Your task to perform on an android device: What's the weather going to be tomorrow? Image 0: 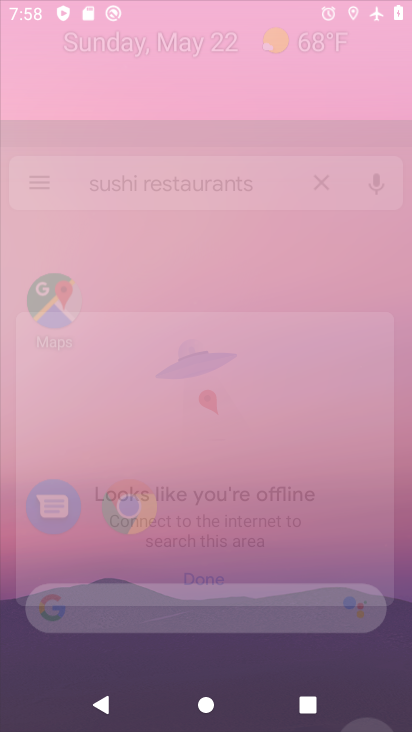
Step 0: press back button
Your task to perform on an android device: What's the weather going to be tomorrow? Image 1: 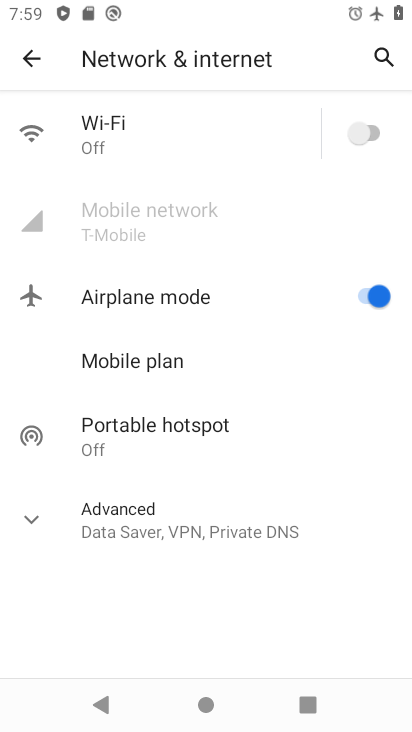
Step 1: click (359, 124)
Your task to perform on an android device: What's the weather going to be tomorrow? Image 2: 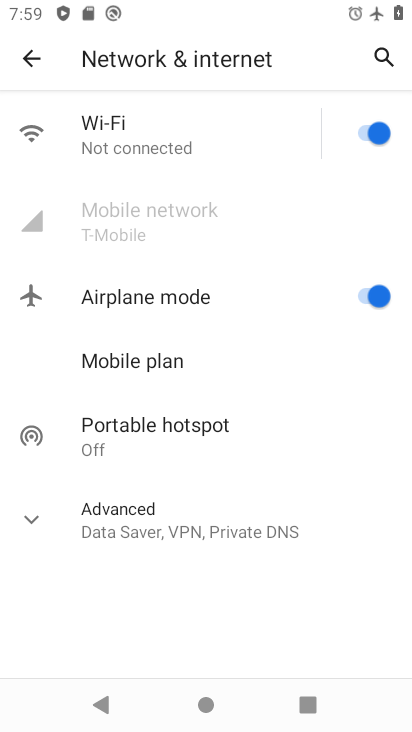
Step 2: click (383, 302)
Your task to perform on an android device: What's the weather going to be tomorrow? Image 3: 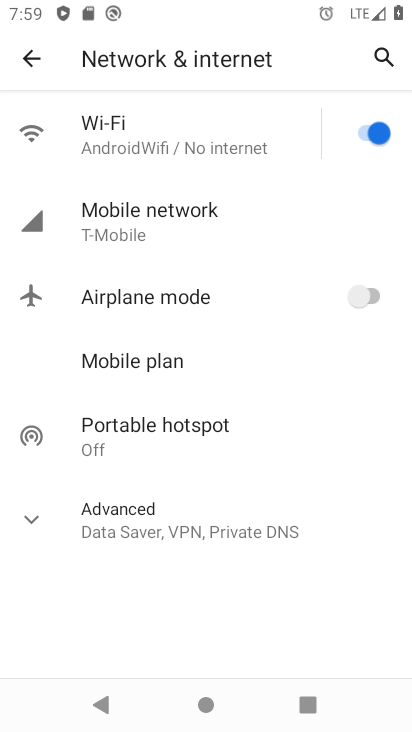
Step 3: click (13, 53)
Your task to perform on an android device: What's the weather going to be tomorrow? Image 4: 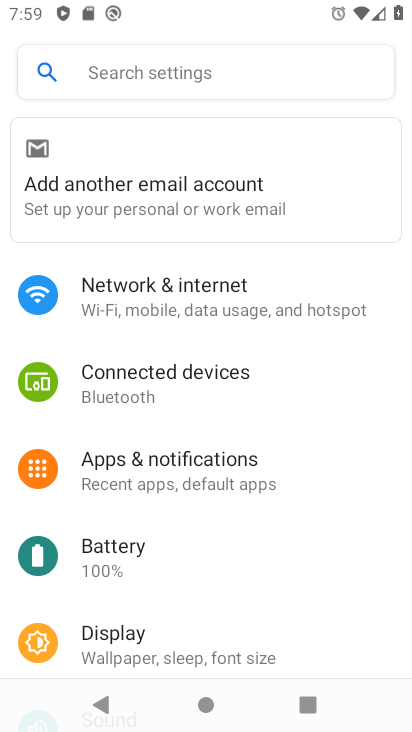
Step 4: press back button
Your task to perform on an android device: What's the weather going to be tomorrow? Image 5: 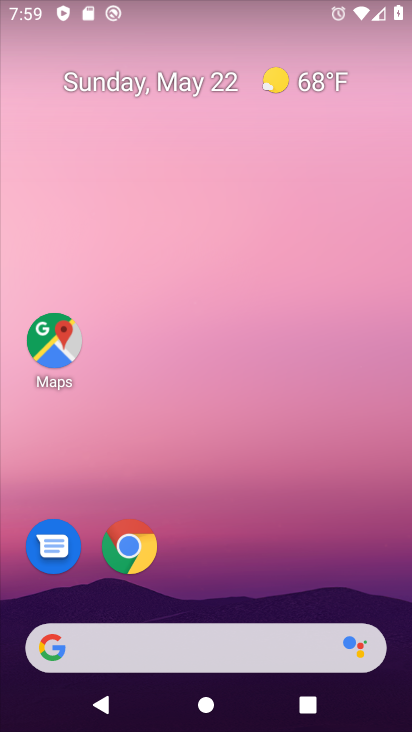
Step 5: drag from (398, 421) to (406, 380)
Your task to perform on an android device: What's the weather going to be tomorrow? Image 6: 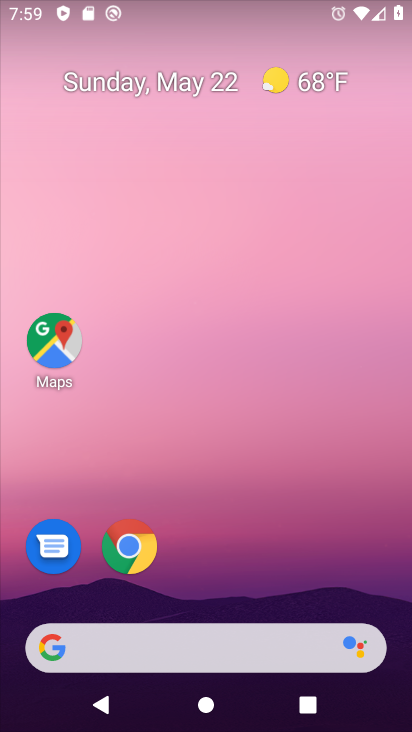
Step 6: drag from (0, 254) to (404, 486)
Your task to perform on an android device: What's the weather going to be tomorrow? Image 7: 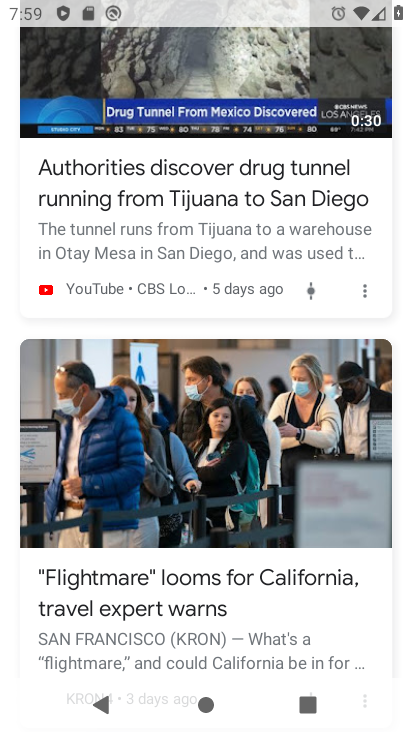
Step 7: drag from (161, 139) to (264, 547)
Your task to perform on an android device: What's the weather going to be tomorrow? Image 8: 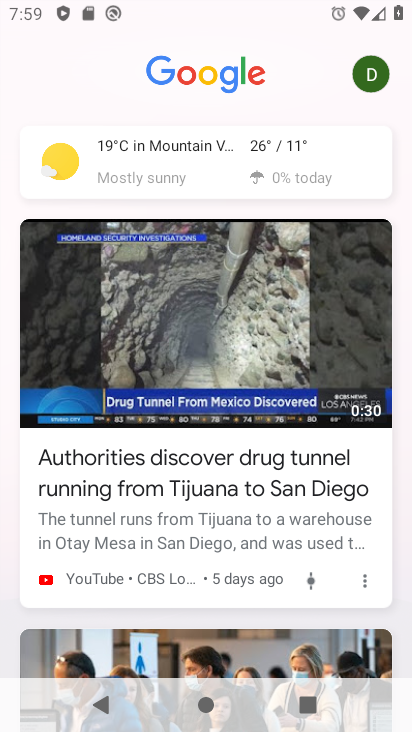
Step 8: click (208, 162)
Your task to perform on an android device: What's the weather going to be tomorrow? Image 9: 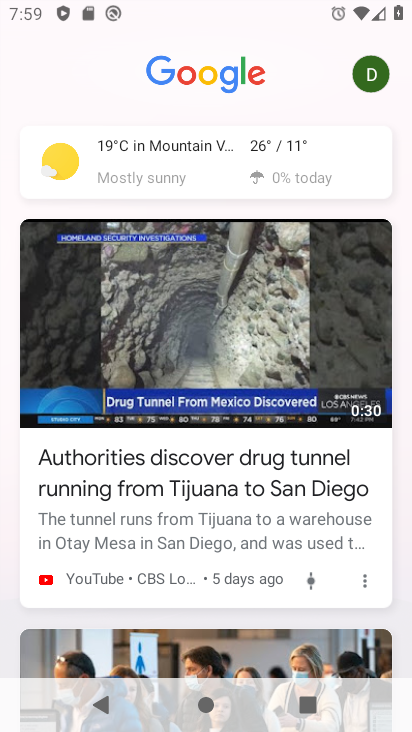
Step 9: click (208, 162)
Your task to perform on an android device: What's the weather going to be tomorrow? Image 10: 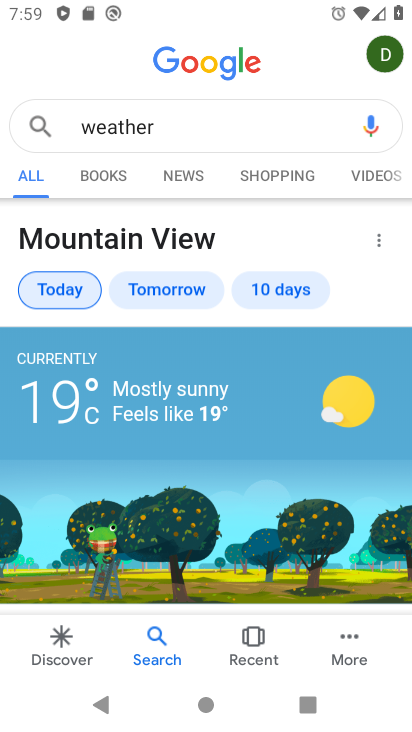
Step 10: click (167, 288)
Your task to perform on an android device: What's the weather going to be tomorrow? Image 11: 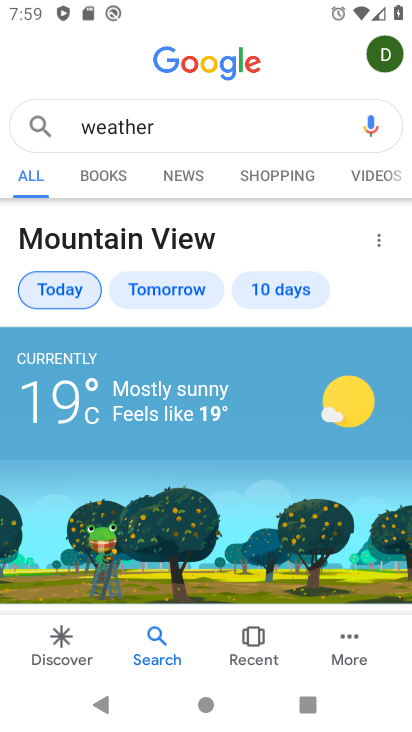
Step 11: click (167, 288)
Your task to perform on an android device: What's the weather going to be tomorrow? Image 12: 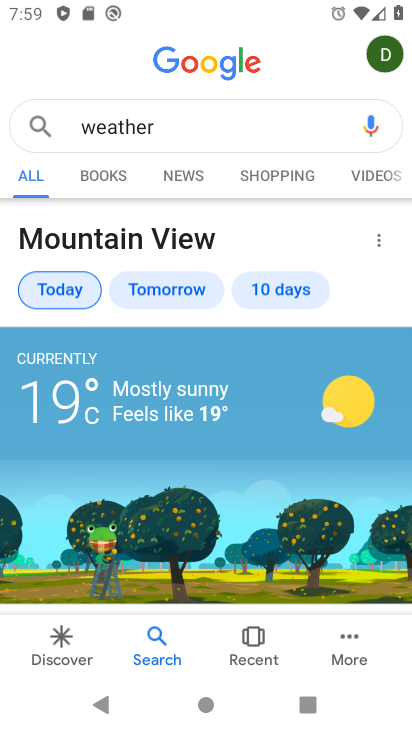
Step 12: task complete